Your task to perform on an android device: Show me recent news Image 0: 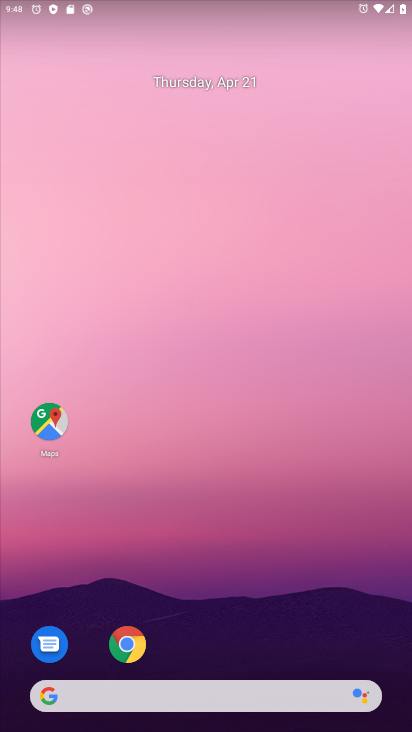
Step 0: click (130, 692)
Your task to perform on an android device: Show me recent news Image 1: 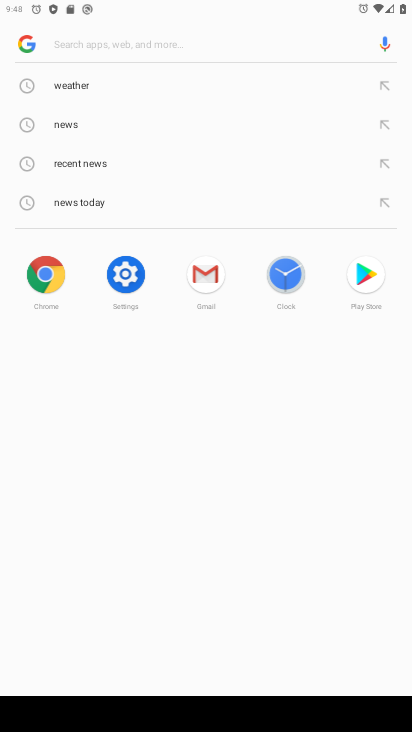
Step 1: type "recent news"
Your task to perform on an android device: Show me recent news Image 2: 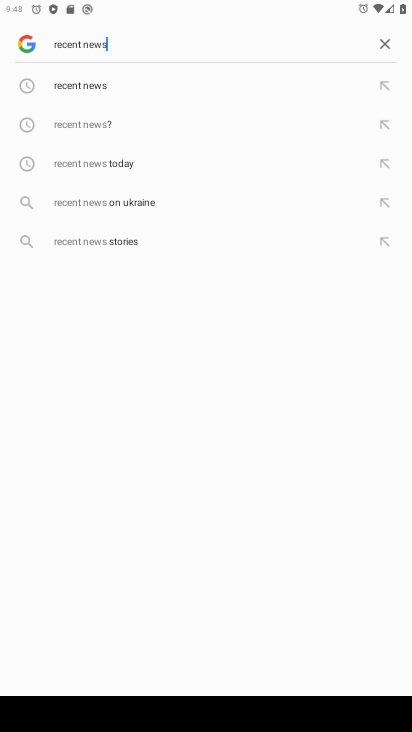
Step 2: click (85, 80)
Your task to perform on an android device: Show me recent news Image 3: 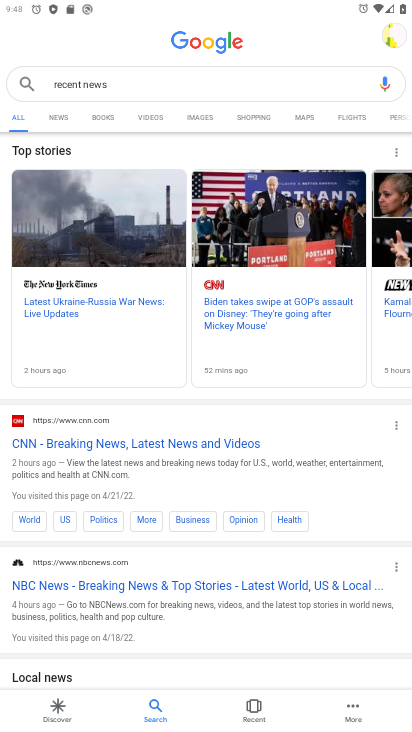
Step 3: task complete